Your task to perform on an android device: Search for usb-b on walmart, select the first entry, add it to the cart, then select checkout. Image 0: 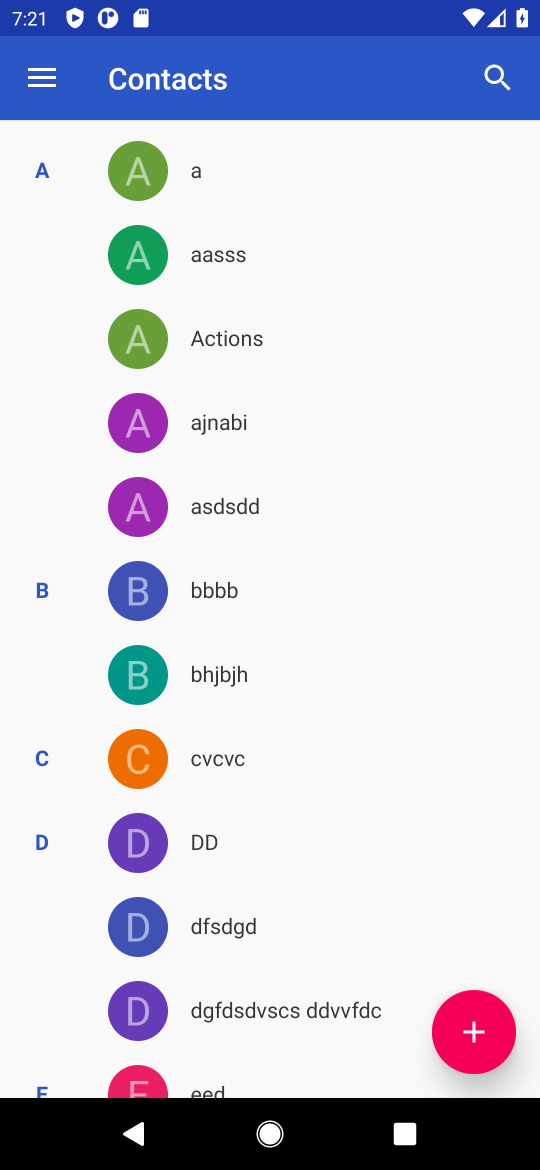
Step 0: press home button
Your task to perform on an android device: Search for usb-b on walmart, select the first entry, add it to the cart, then select checkout. Image 1: 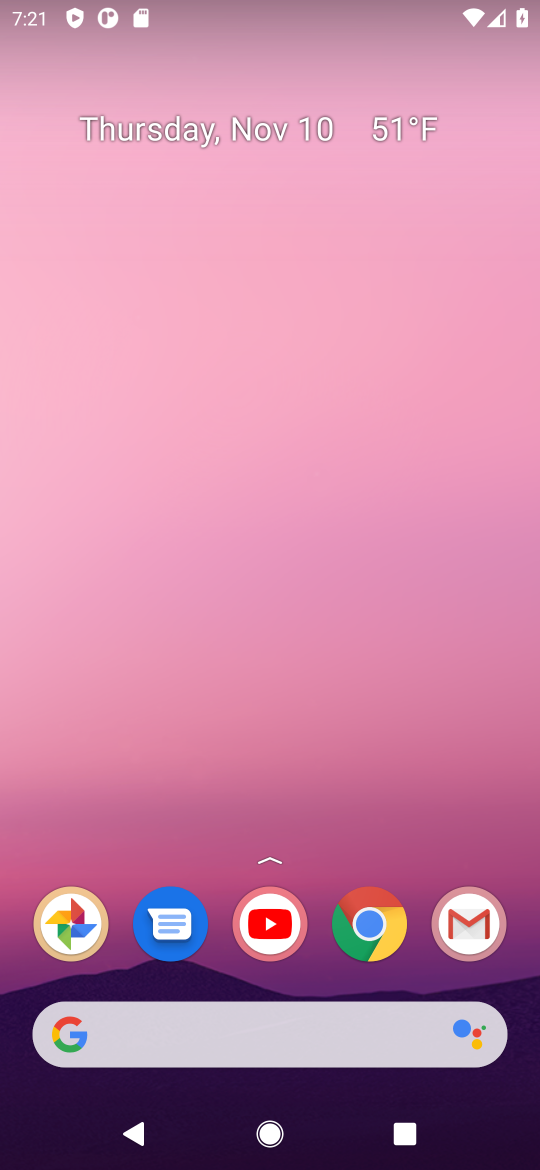
Step 1: click (371, 919)
Your task to perform on an android device: Search for usb-b on walmart, select the first entry, add it to the cart, then select checkout. Image 2: 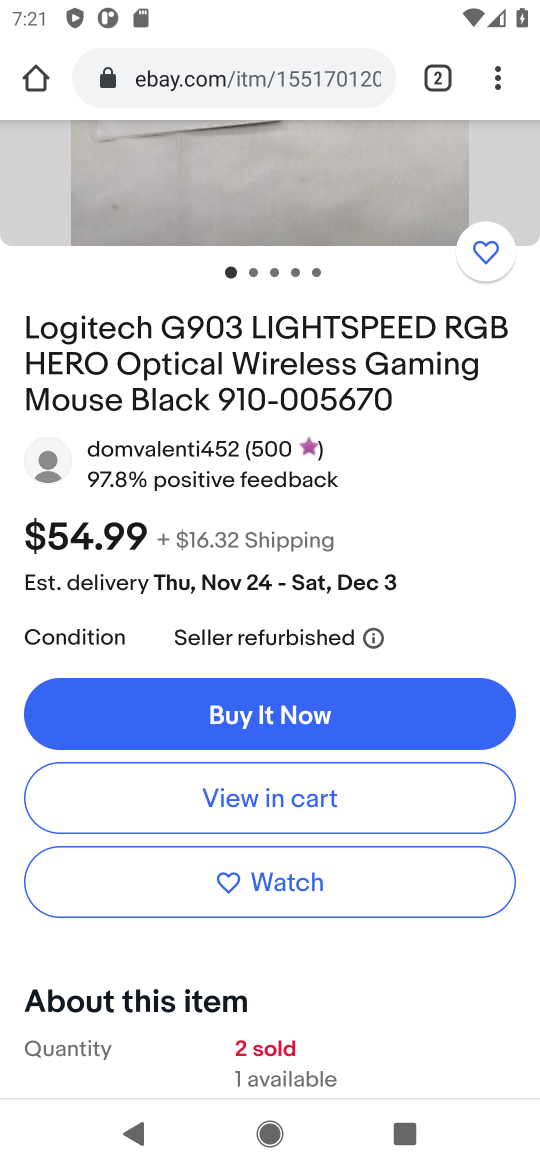
Step 2: click (259, 86)
Your task to perform on an android device: Search for usb-b on walmart, select the first entry, add it to the cart, then select checkout. Image 3: 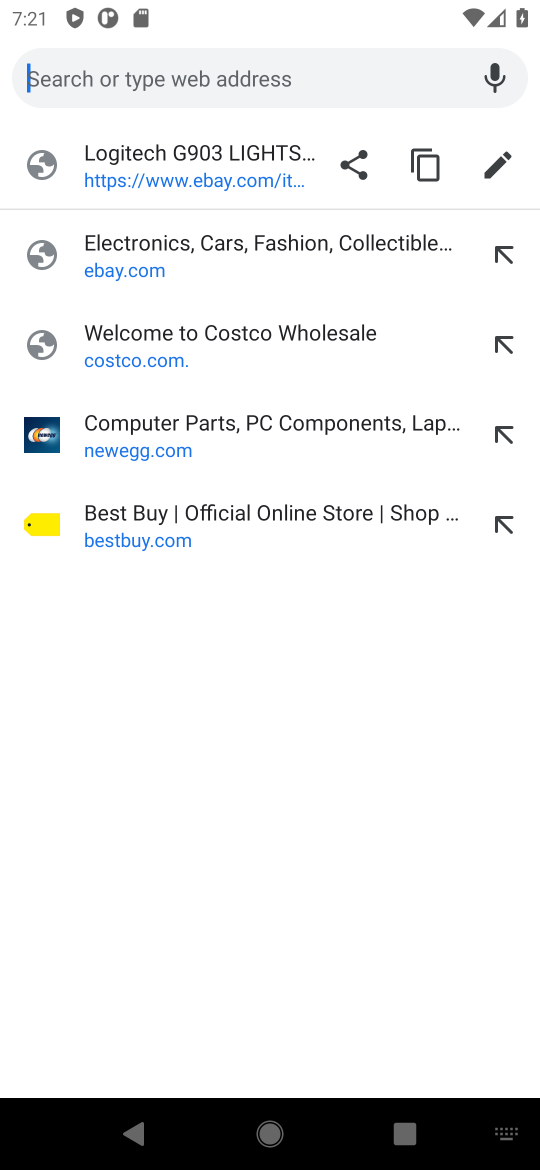
Step 3: type "walmart.com"
Your task to perform on an android device: Search for usb-b on walmart, select the first entry, add it to the cart, then select checkout. Image 4: 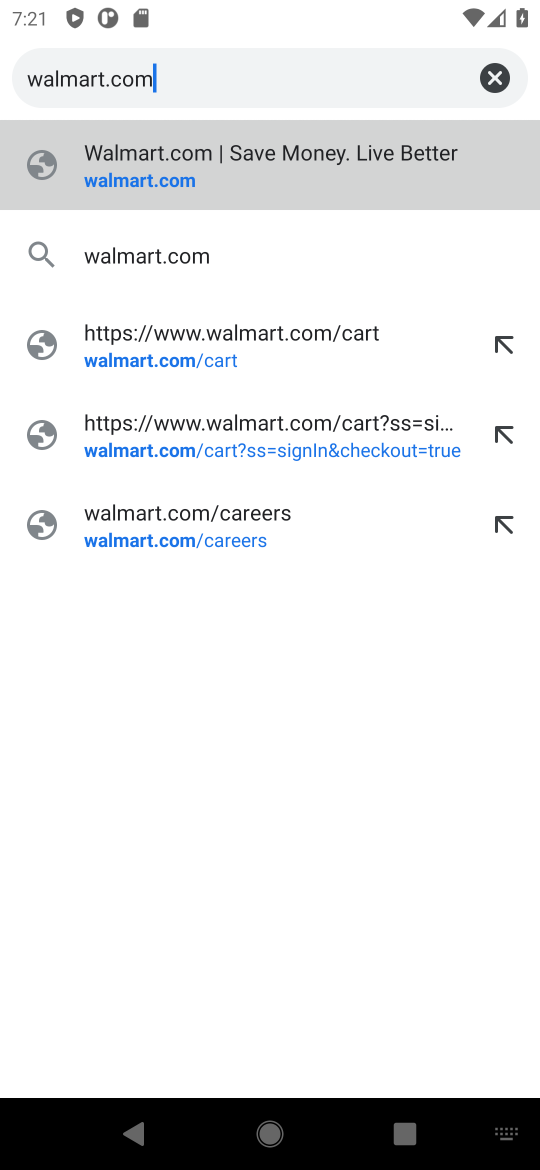
Step 4: click (134, 199)
Your task to perform on an android device: Search for usb-b on walmart, select the first entry, add it to the cart, then select checkout. Image 5: 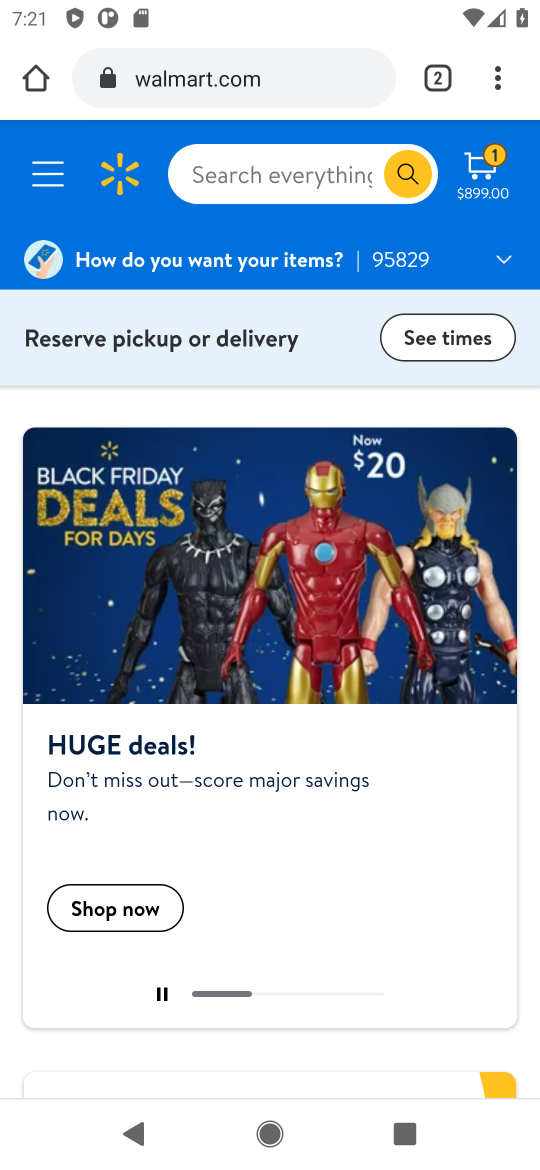
Step 5: click (232, 183)
Your task to perform on an android device: Search for usb-b on walmart, select the first entry, add it to the cart, then select checkout. Image 6: 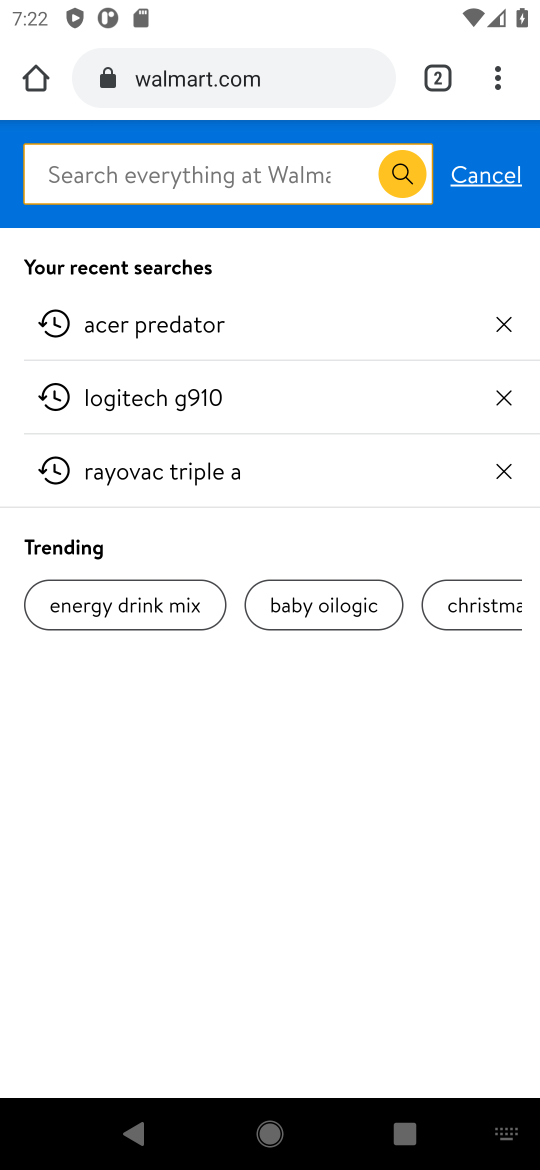
Step 6: type "usb-b "
Your task to perform on an android device: Search for usb-b on walmart, select the first entry, add it to the cart, then select checkout. Image 7: 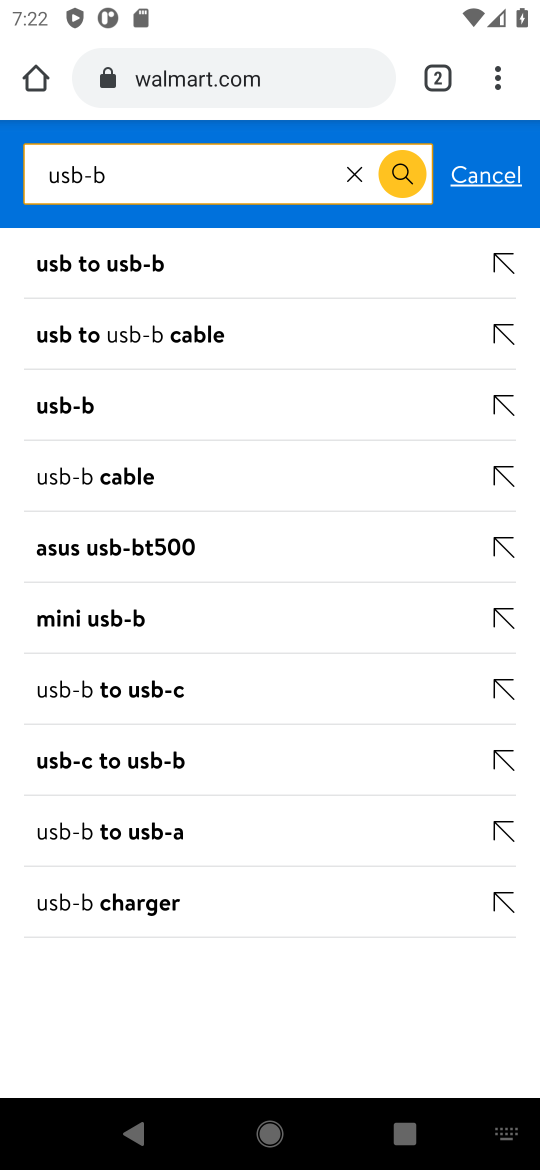
Step 7: click (72, 416)
Your task to perform on an android device: Search for usb-b on walmart, select the first entry, add it to the cart, then select checkout. Image 8: 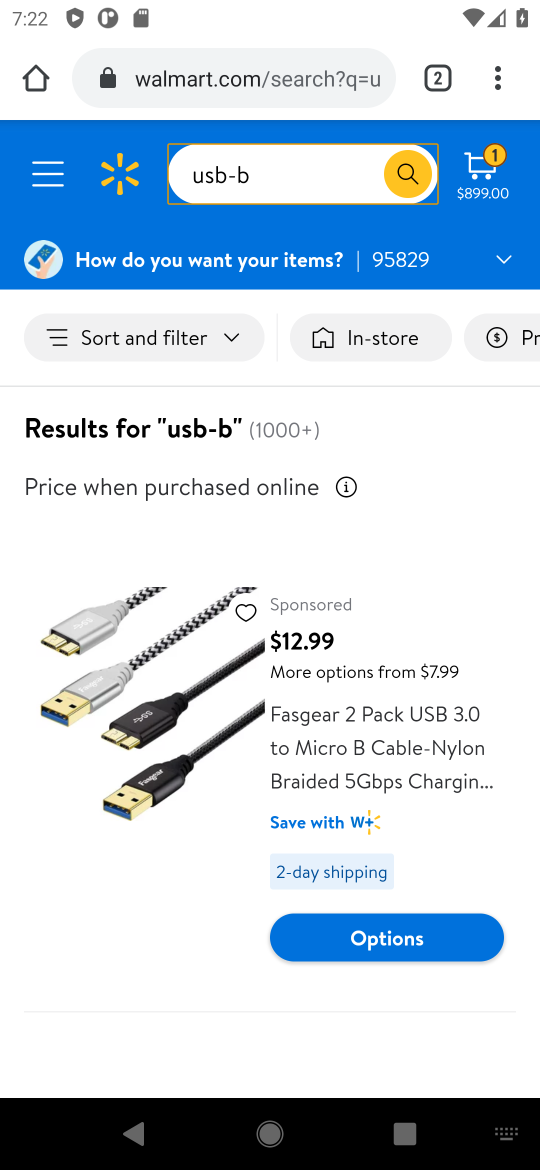
Step 8: click (160, 736)
Your task to perform on an android device: Search for usb-b on walmart, select the first entry, add it to the cart, then select checkout. Image 9: 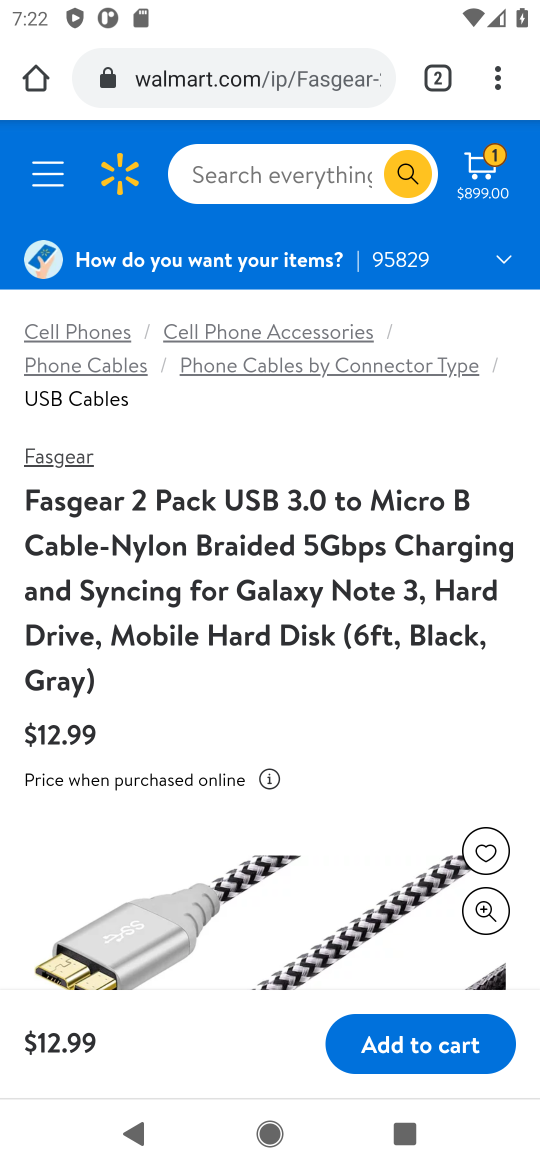
Step 9: task complete